Your task to perform on an android device: Open eBay Image 0: 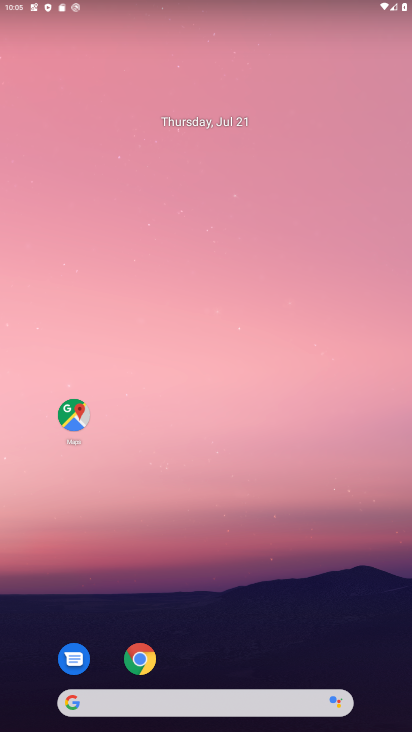
Step 0: drag from (301, 618) to (280, 53)
Your task to perform on an android device: Open eBay Image 1: 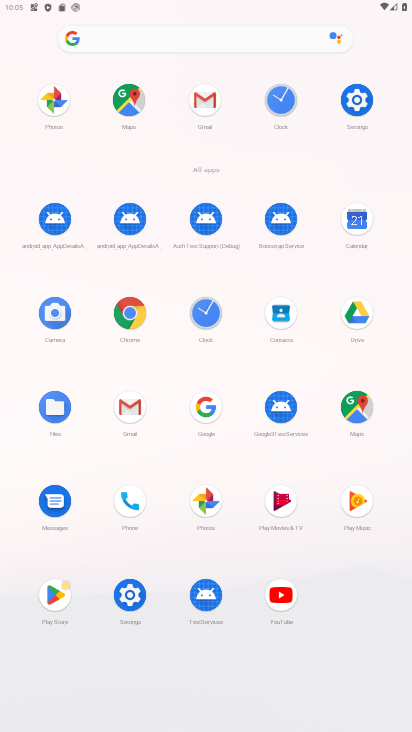
Step 1: click (125, 309)
Your task to perform on an android device: Open eBay Image 2: 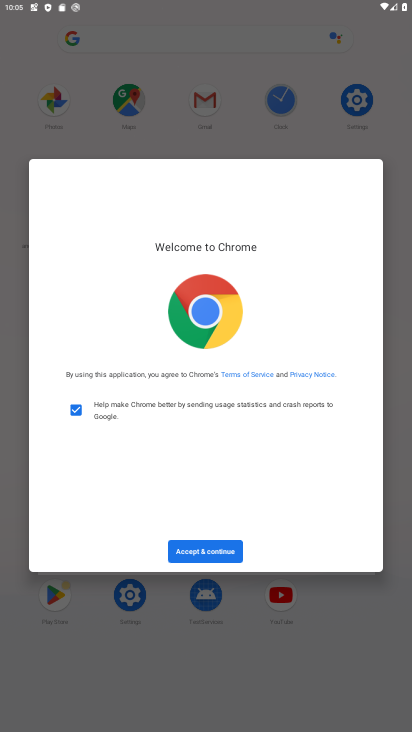
Step 2: click (234, 553)
Your task to perform on an android device: Open eBay Image 3: 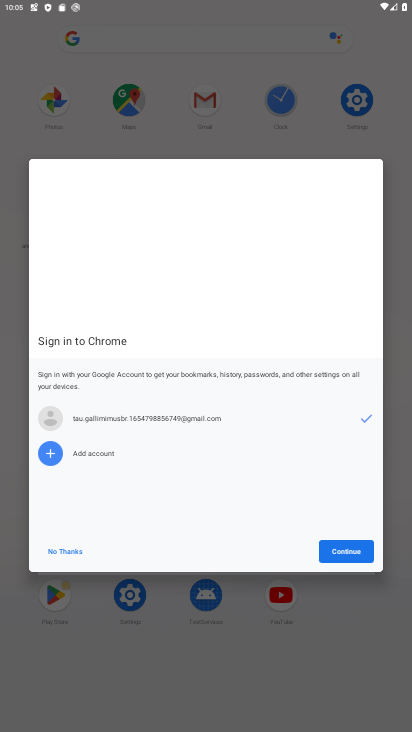
Step 3: click (369, 556)
Your task to perform on an android device: Open eBay Image 4: 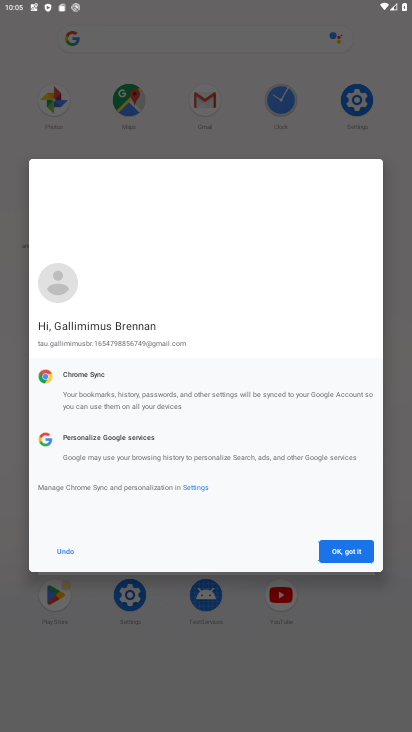
Step 4: click (341, 538)
Your task to perform on an android device: Open eBay Image 5: 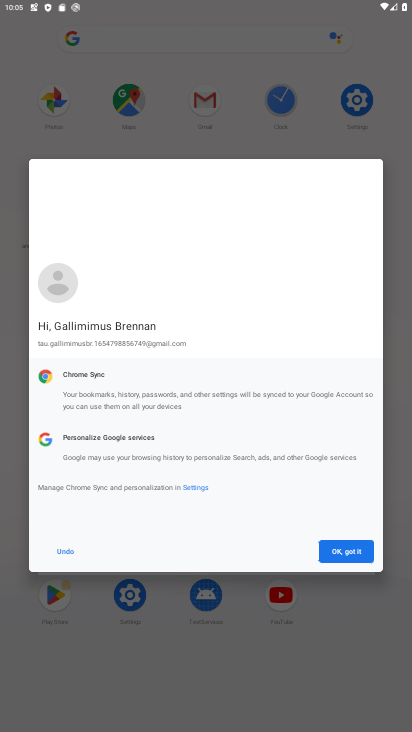
Step 5: click (329, 545)
Your task to perform on an android device: Open eBay Image 6: 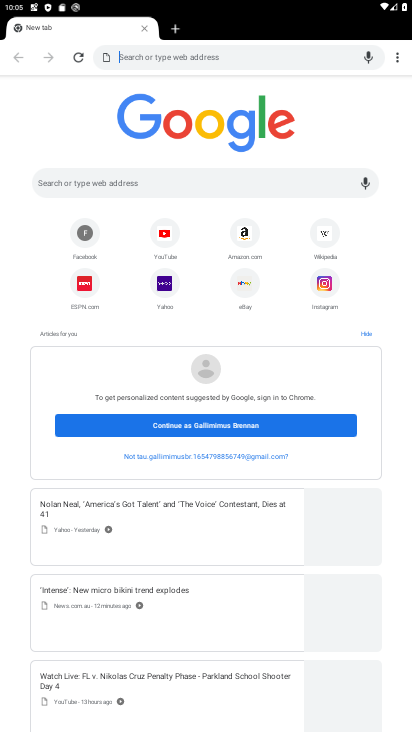
Step 6: click (266, 65)
Your task to perform on an android device: Open eBay Image 7: 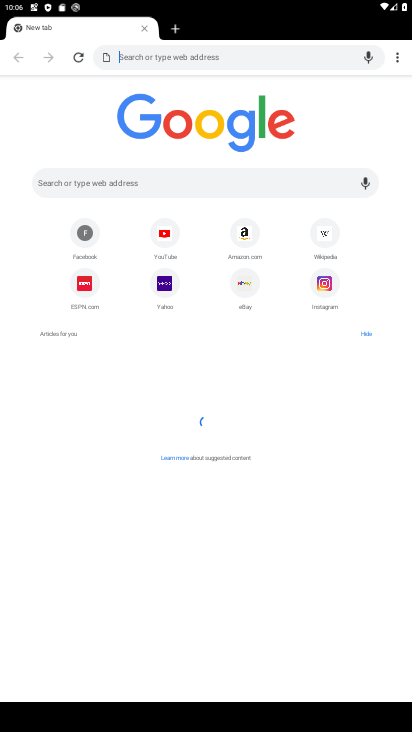
Step 7: click (254, 293)
Your task to perform on an android device: Open eBay Image 8: 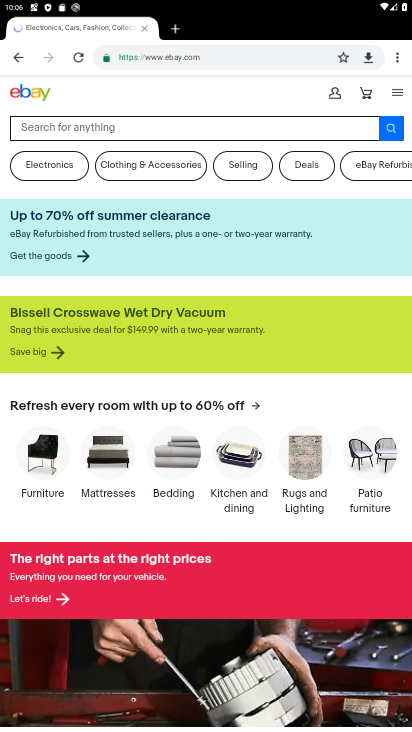
Step 8: task complete